Your task to perform on an android device: Open Wikipedia Image 0: 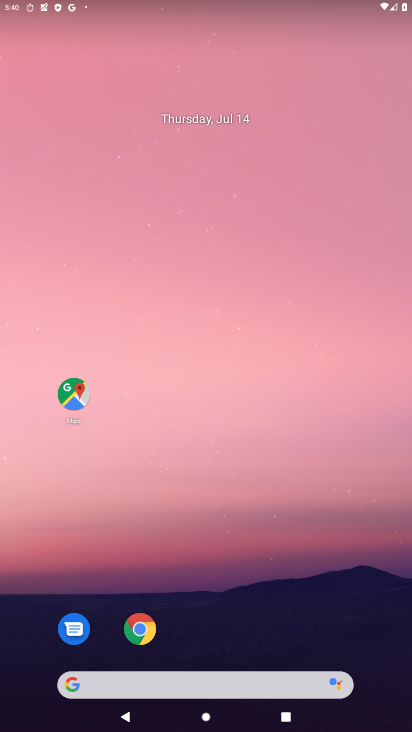
Step 0: drag from (284, 671) to (245, 3)
Your task to perform on an android device: Open Wikipedia Image 1: 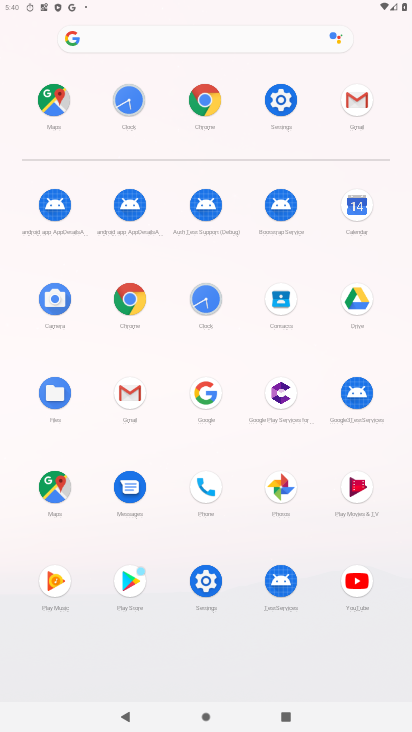
Step 1: click (134, 286)
Your task to perform on an android device: Open Wikipedia Image 2: 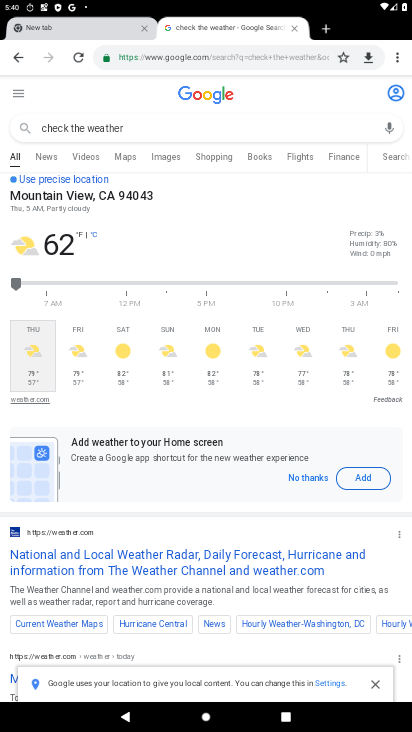
Step 2: click (395, 53)
Your task to perform on an android device: Open Wikipedia Image 3: 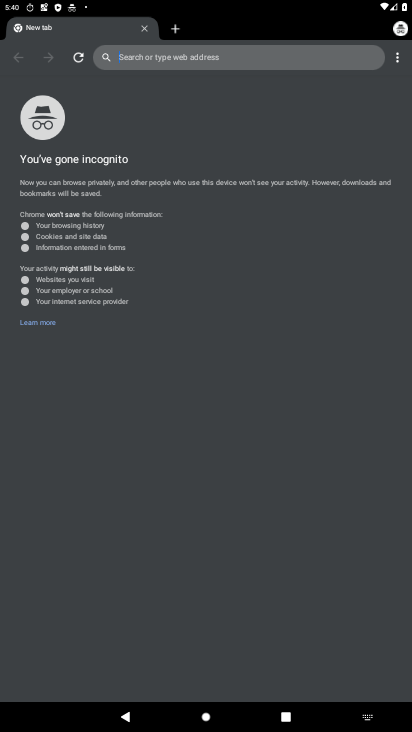
Step 3: drag from (391, 55) to (302, 55)
Your task to perform on an android device: Open Wikipedia Image 4: 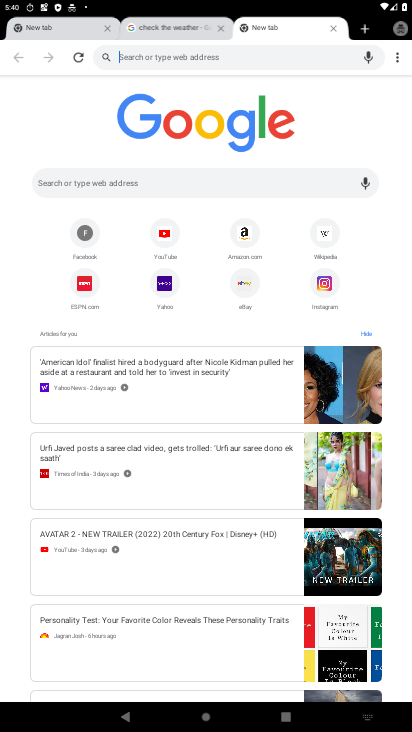
Step 4: click (319, 235)
Your task to perform on an android device: Open Wikipedia Image 5: 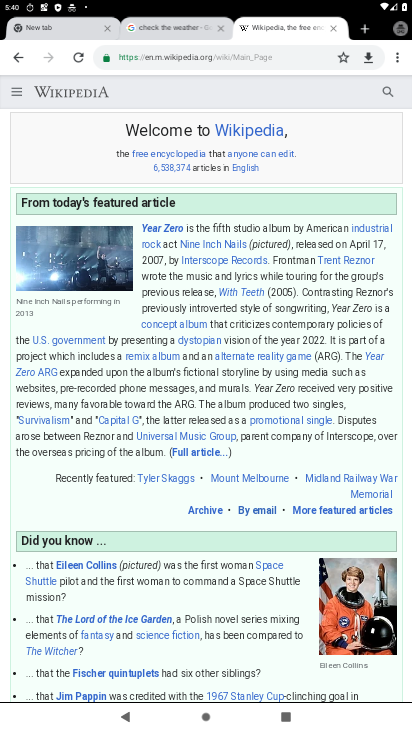
Step 5: task complete